Your task to perform on an android device: What is the recent news? Image 0: 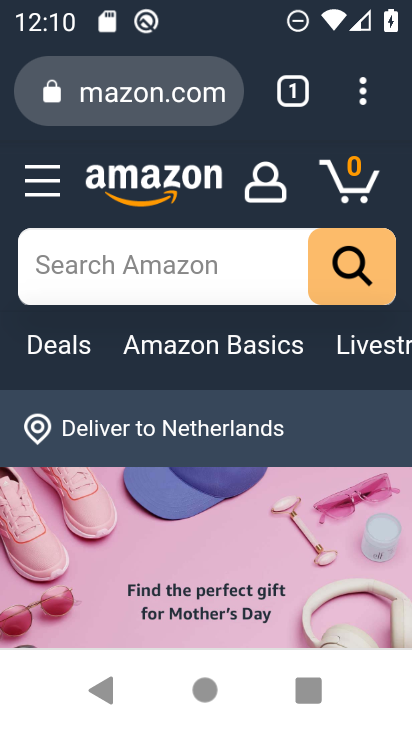
Step 0: press home button
Your task to perform on an android device: What is the recent news? Image 1: 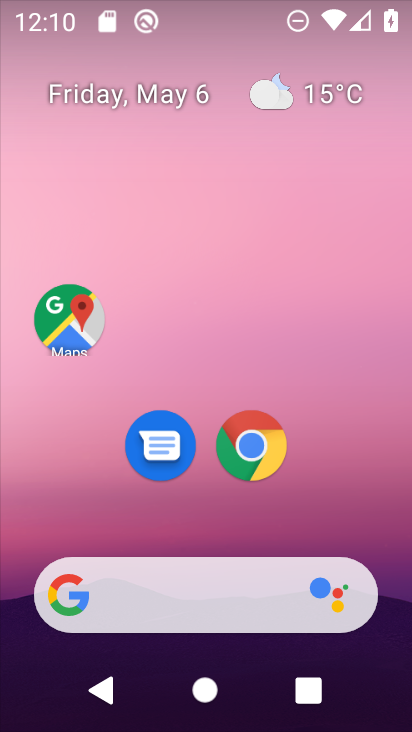
Step 1: click (70, 595)
Your task to perform on an android device: What is the recent news? Image 2: 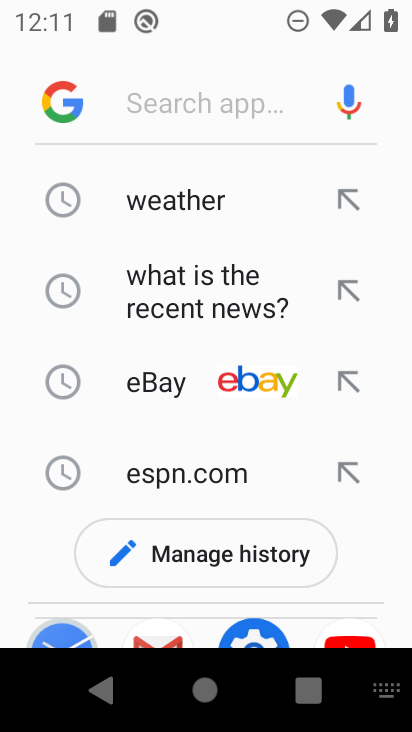
Step 2: click (191, 288)
Your task to perform on an android device: What is the recent news? Image 3: 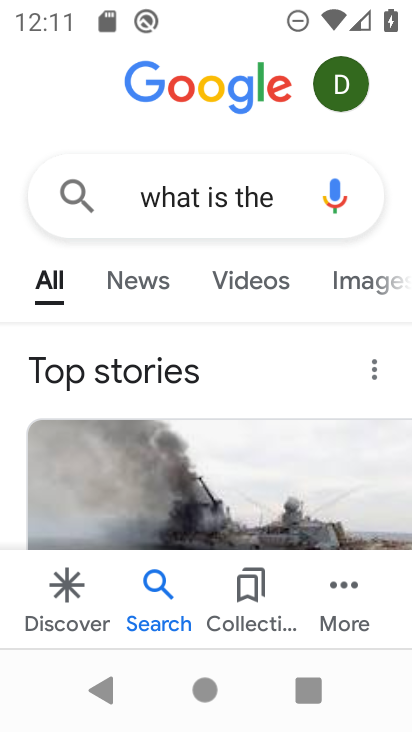
Step 3: click (138, 290)
Your task to perform on an android device: What is the recent news? Image 4: 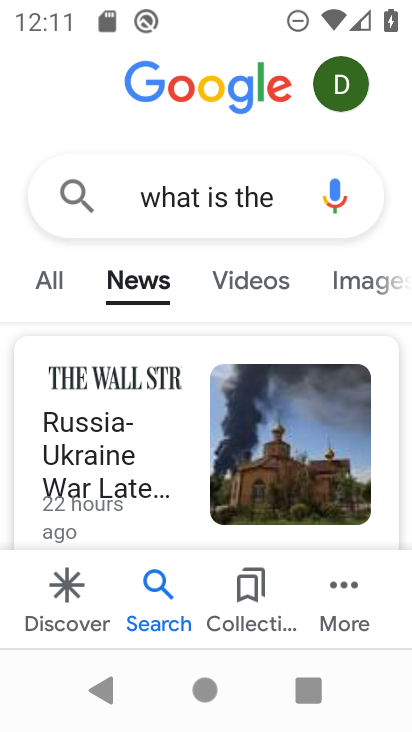
Step 4: task complete